Your task to perform on an android device: Open calendar and show me the first week of next month Image 0: 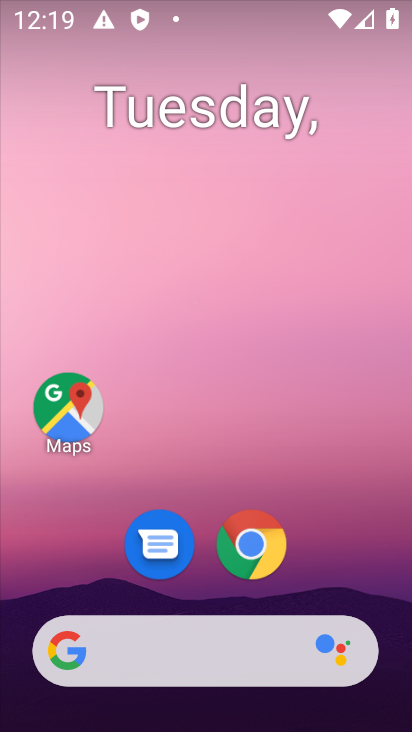
Step 0: drag from (334, 532) to (216, 21)
Your task to perform on an android device: Open calendar and show me the first week of next month Image 1: 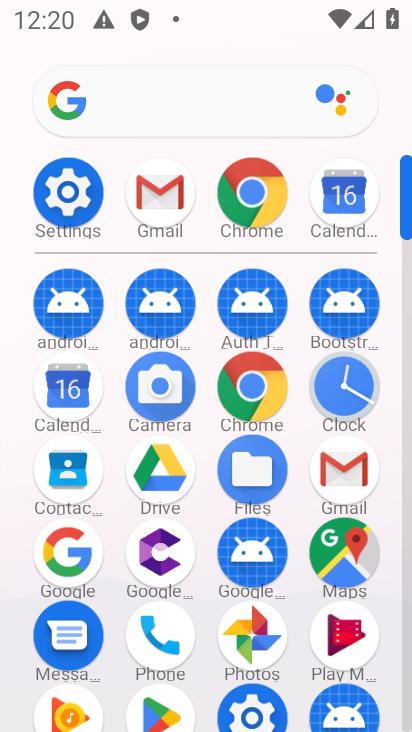
Step 1: click (75, 384)
Your task to perform on an android device: Open calendar and show me the first week of next month Image 2: 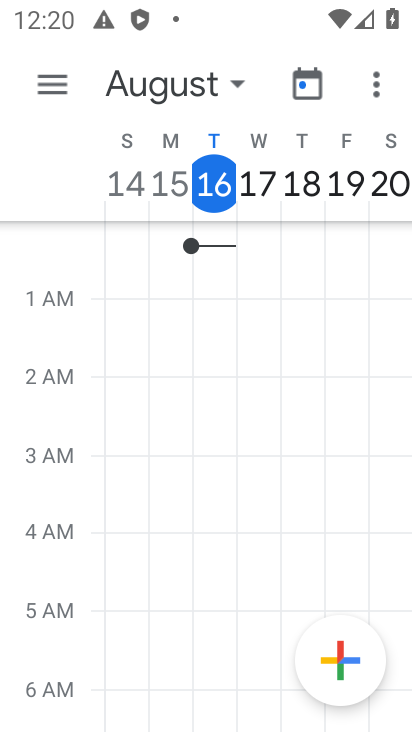
Step 2: click (163, 82)
Your task to perform on an android device: Open calendar and show me the first week of next month Image 3: 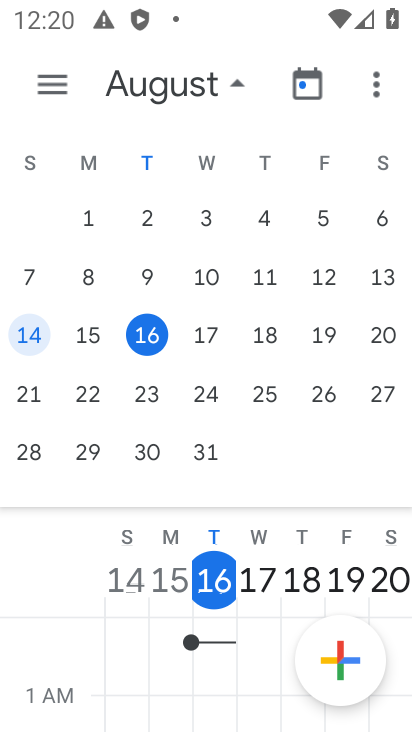
Step 3: drag from (363, 353) to (5, 358)
Your task to perform on an android device: Open calendar and show me the first week of next month Image 4: 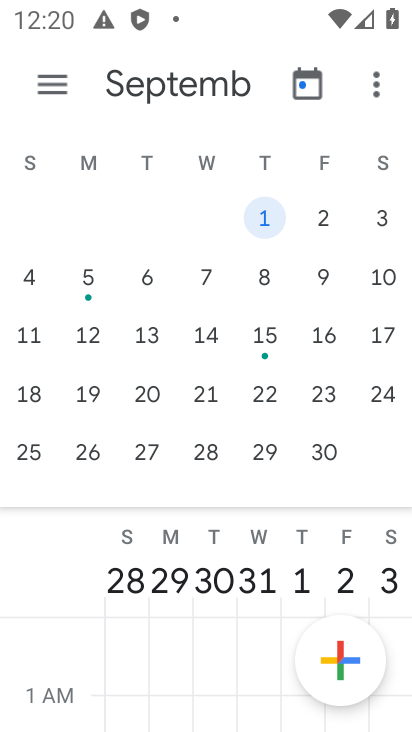
Step 4: click (152, 277)
Your task to perform on an android device: Open calendar and show me the first week of next month Image 5: 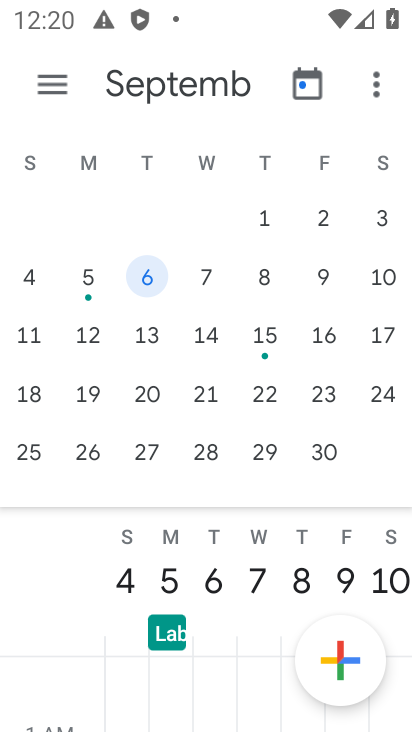
Step 5: task complete